Your task to perform on an android device: What's on my calendar tomorrow? Image 0: 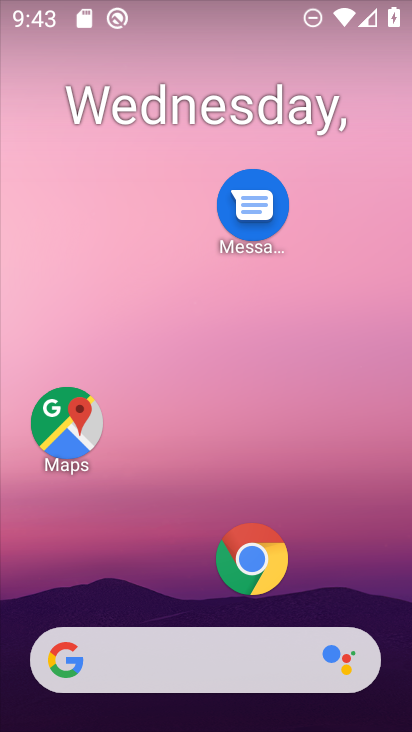
Step 0: drag from (213, 419) to (257, 18)
Your task to perform on an android device: What's on my calendar tomorrow? Image 1: 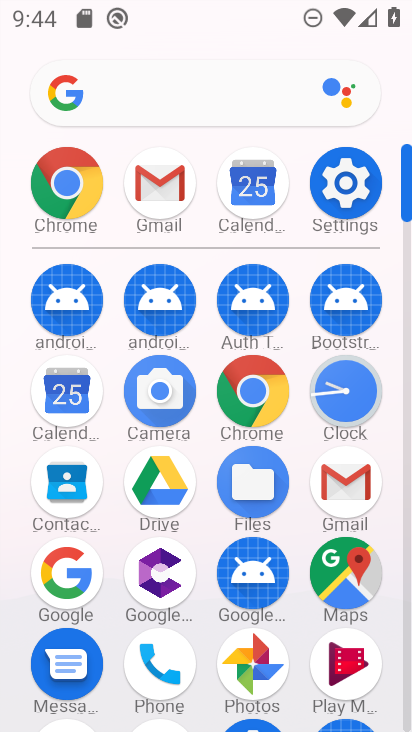
Step 1: click (77, 407)
Your task to perform on an android device: What's on my calendar tomorrow? Image 2: 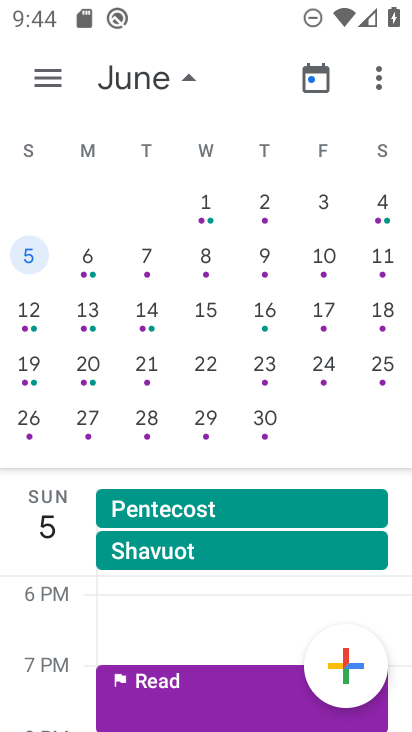
Step 2: drag from (63, 336) to (397, 494)
Your task to perform on an android device: What's on my calendar tomorrow? Image 3: 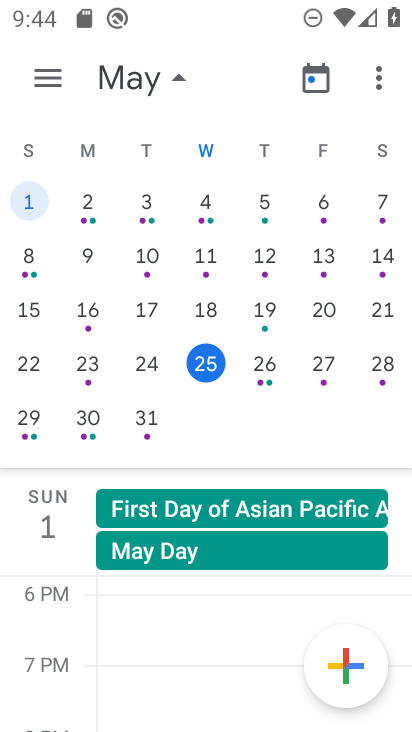
Step 3: click (320, 369)
Your task to perform on an android device: What's on my calendar tomorrow? Image 4: 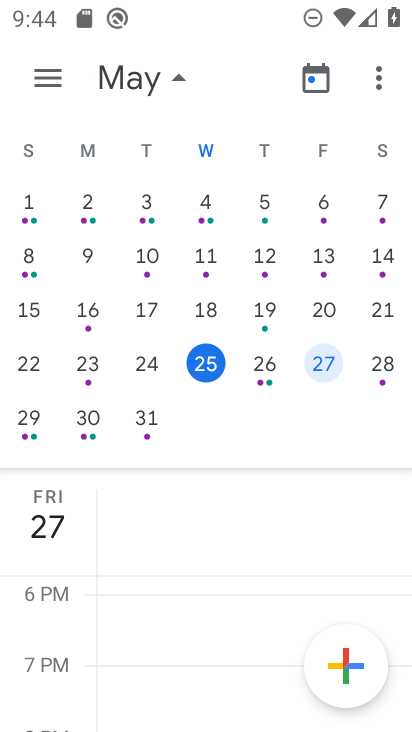
Step 4: task complete